Your task to perform on an android device: Show me popular videos on Youtube Image 0: 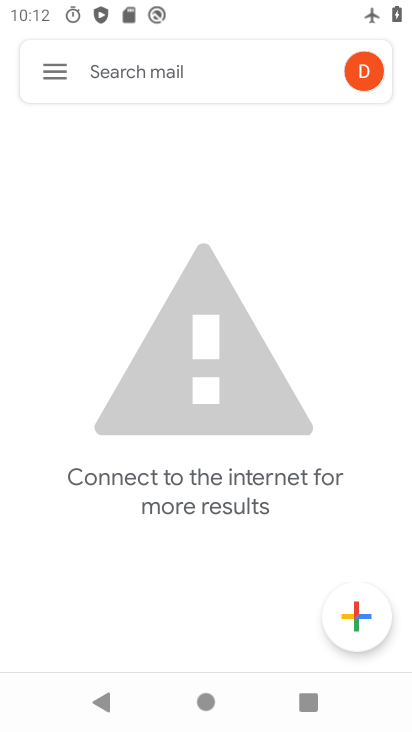
Step 0: press home button
Your task to perform on an android device: Show me popular videos on Youtube Image 1: 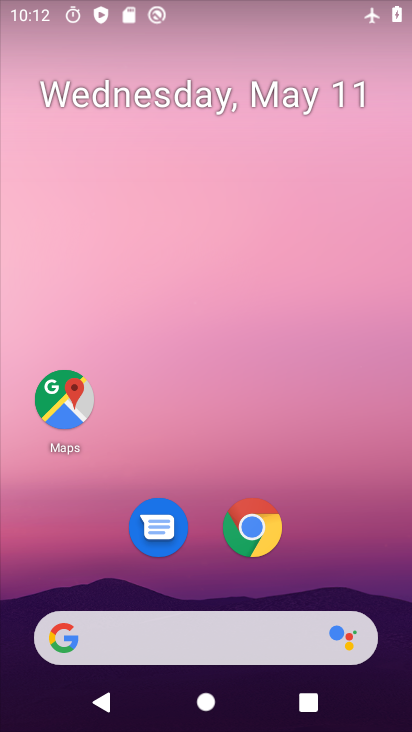
Step 1: drag from (302, 532) to (336, 240)
Your task to perform on an android device: Show me popular videos on Youtube Image 2: 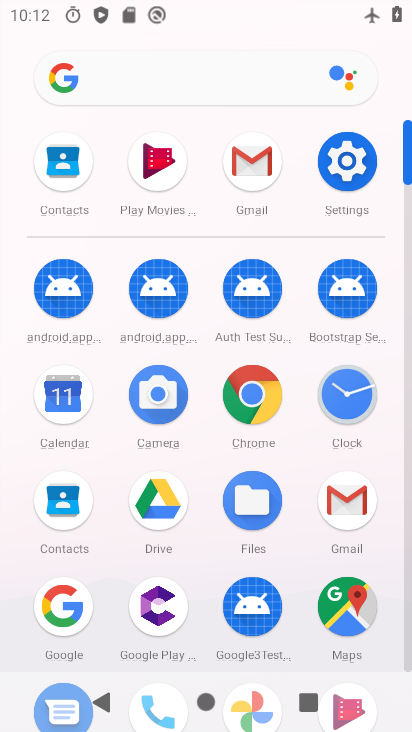
Step 2: drag from (277, 529) to (320, 299)
Your task to perform on an android device: Show me popular videos on Youtube Image 3: 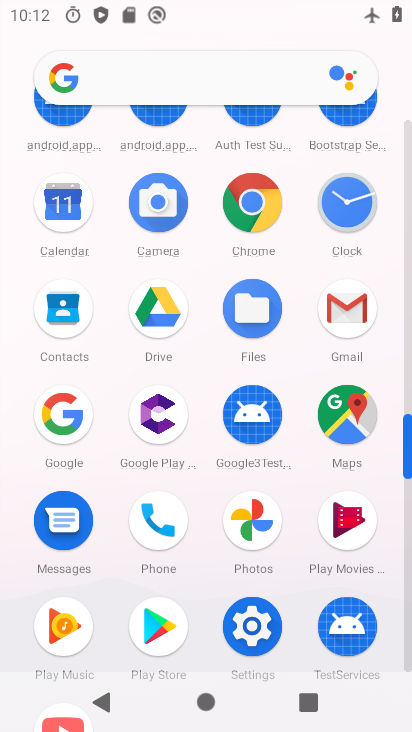
Step 3: drag from (292, 479) to (314, 355)
Your task to perform on an android device: Show me popular videos on Youtube Image 4: 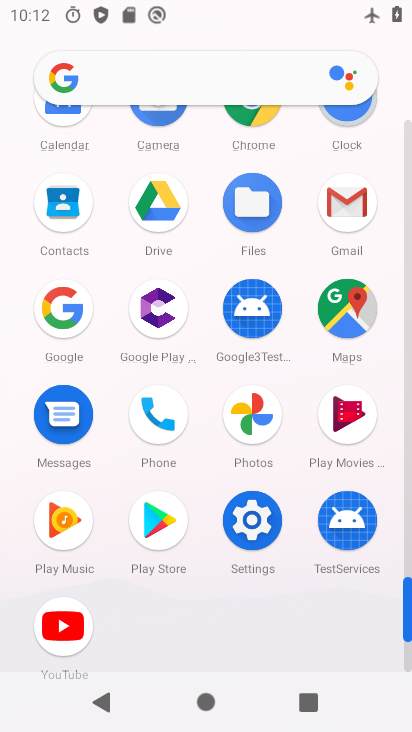
Step 4: click (70, 650)
Your task to perform on an android device: Show me popular videos on Youtube Image 5: 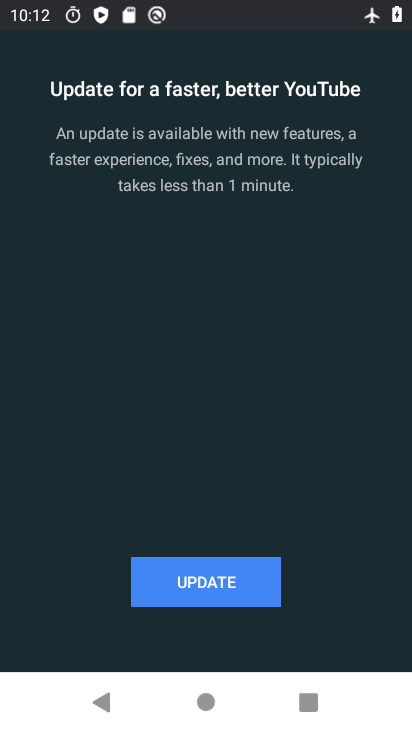
Step 5: click (275, 595)
Your task to perform on an android device: Show me popular videos on Youtube Image 6: 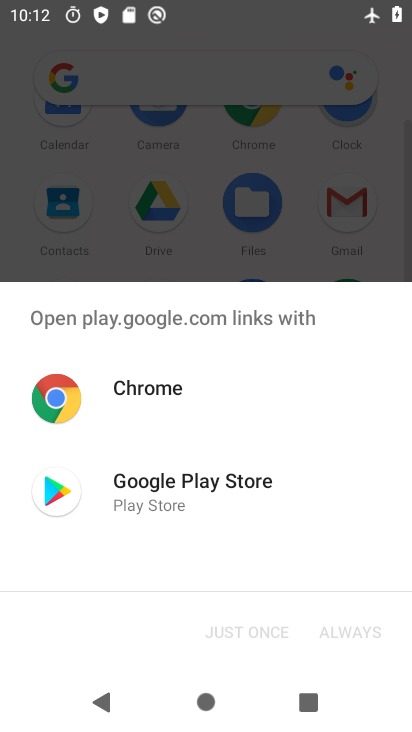
Step 6: click (242, 508)
Your task to perform on an android device: Show me popular videos on Youtube Image 7: 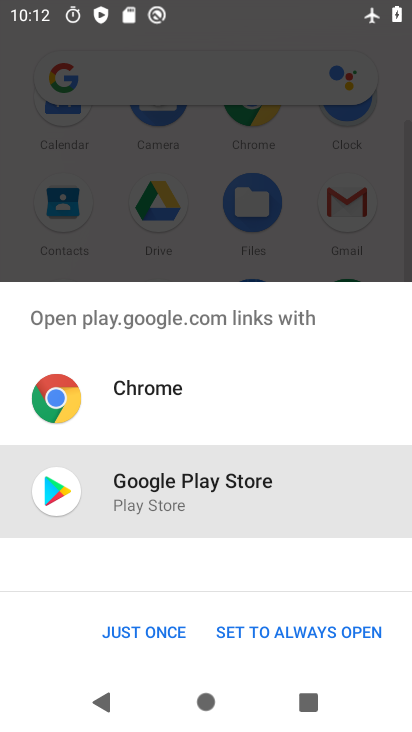
Step 7: click (150, 627)
Your task to perform on an android device: Show me popular videos on Youtube Image 8: 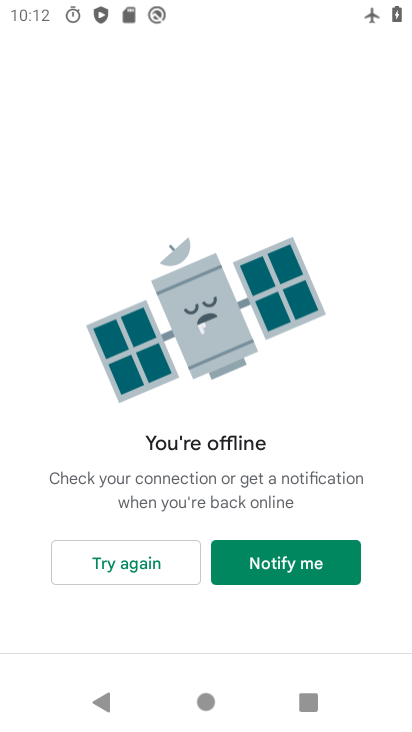
Step 8: task complete